Your task to perform on an android device: add a contact in the contacts app Image 0: 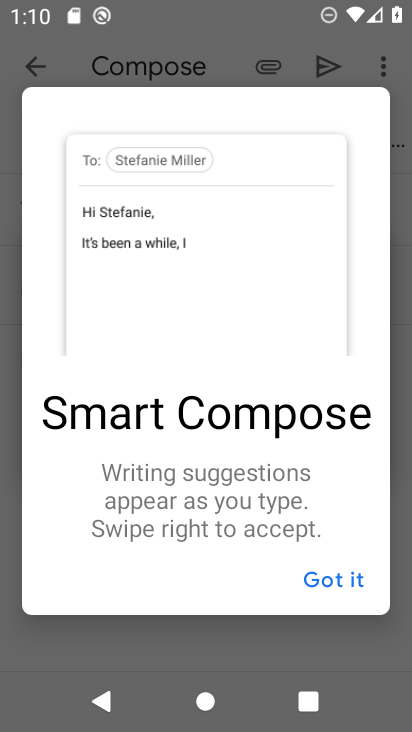
Step 0: press home button
Your task to perform on an android device: add a contact in the contacts app Image 1: 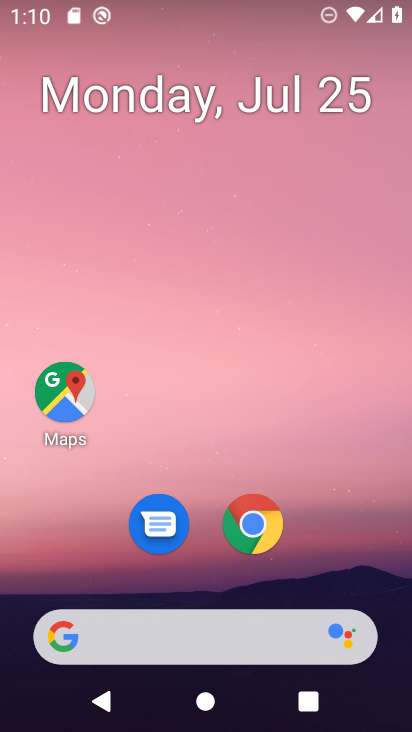
Step 1: drag from (225, 645) to (352, 46)
Your task to perform on an android device: add a contact in the contacts app Image 2: 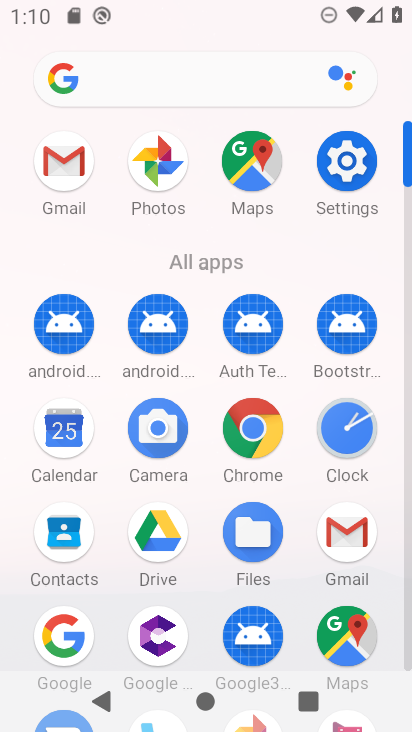
Step 2: click (67, 528)
Your task to perform on an android device: add a contact in the contacts app Image 3: 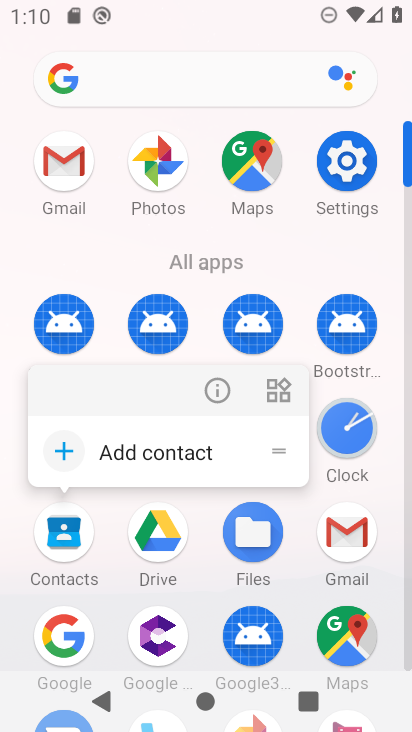
Step 3: click (58, 537)
Your task to perform on an android device: add a contact in the contacts app Image 4: 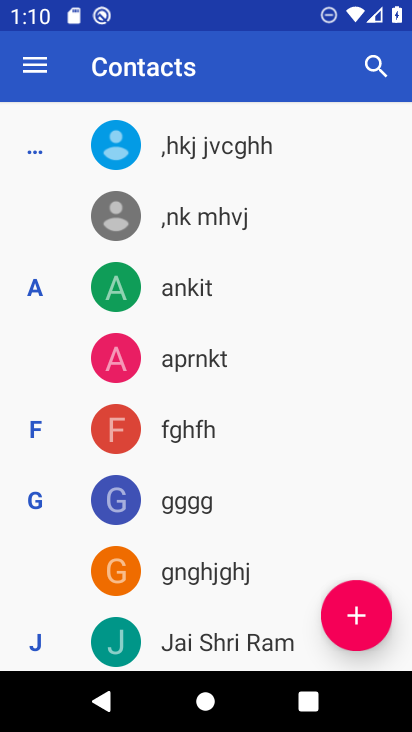
Step 4: click (362, 625)
Your task to perform on an android device: add a contact in the contacts app Image 5: 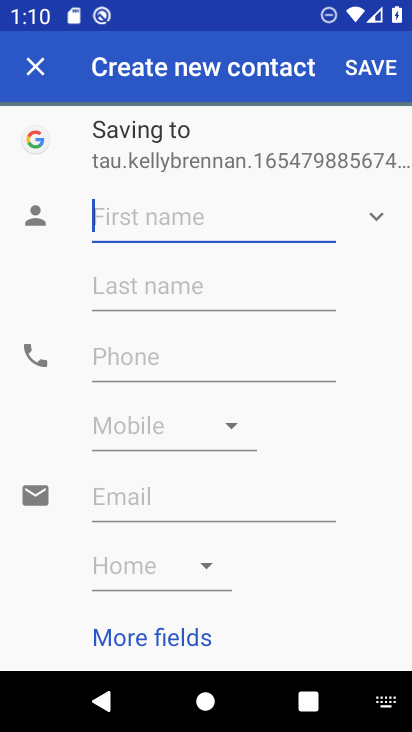
Step 5: type "boiyafffgg"
Your task to perform on an android device: add a contact in the contacts app Image 6: 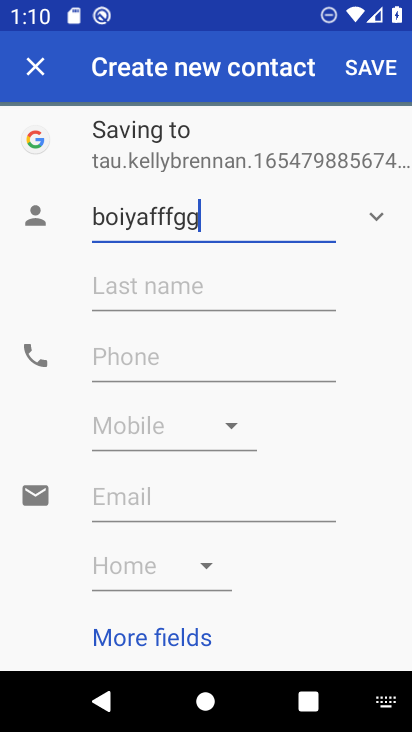
Step 6: click (118, 352)
Your task to perform on an android device: add a contact in the contacts app Image 7: 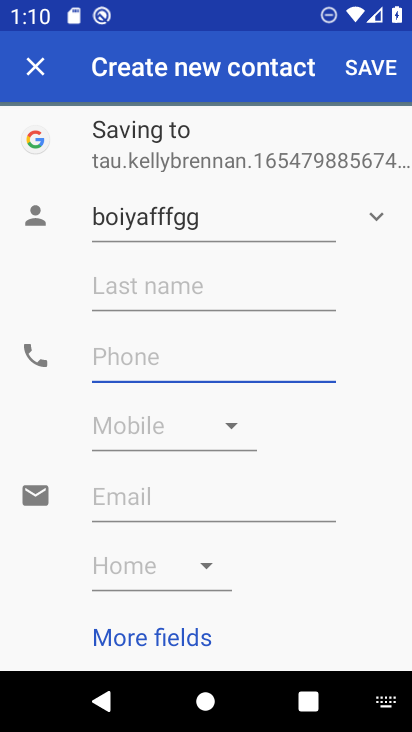
Step 7: type "165488776"
Your task to perform on an android device: add a contact in the contacts app Image 8: 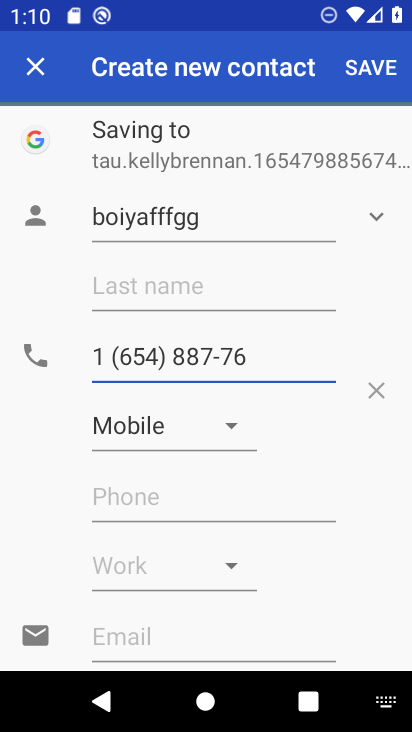
Step 8: click (387, 64)
Your task to perform on an android device: add a contact in the contacts app Image 9: 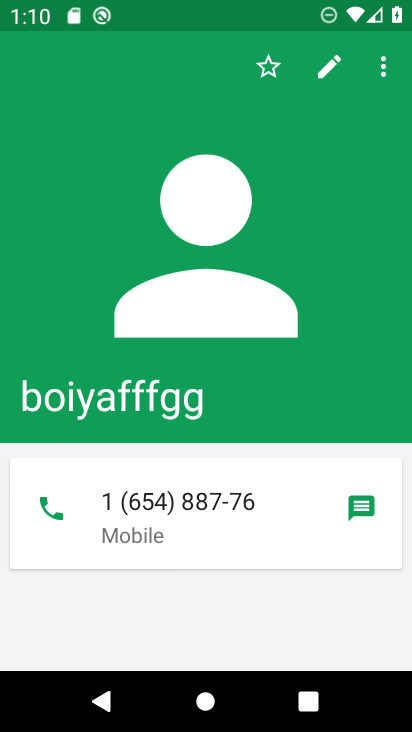
Step 9: task complete